Your task to perform on an android device: Open Chrome and go to settings Image 0: 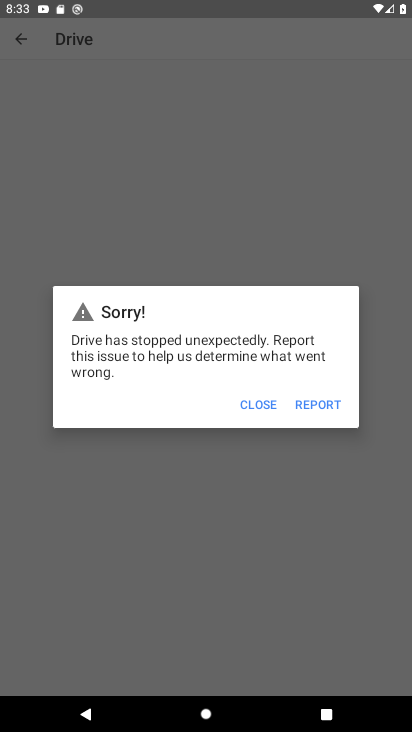
Step 0: press home button
Your task to perform on an android device: Open Chrome and go to settings Image 1: 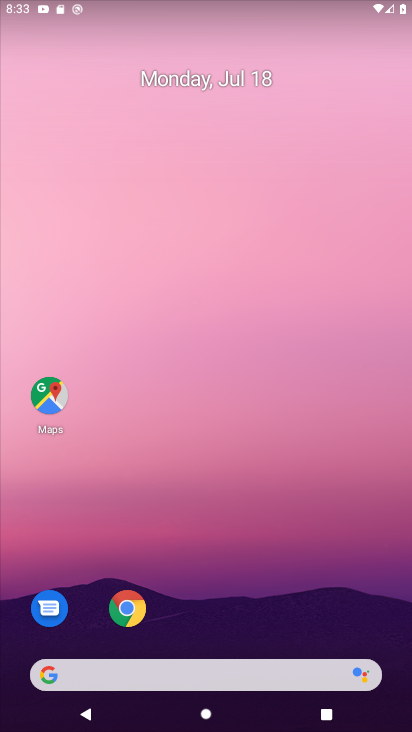
Step 1: click (129, 609)
Your task to perform on an android device: Open Chrome and go to settings Image 2: 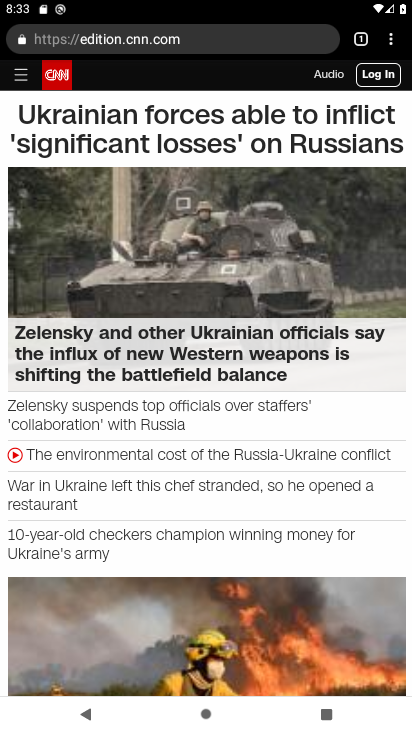
Step 2: click (392, 40)
Your task to perform on an android device: Open Chrome and go to settings Image 3: 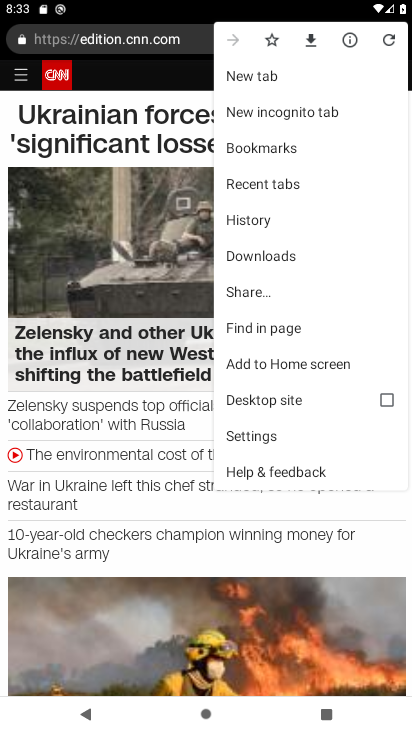
Step 3: click (263, 433)
Your task to perform on an android device: Open Chrome and go to settings Image 4: 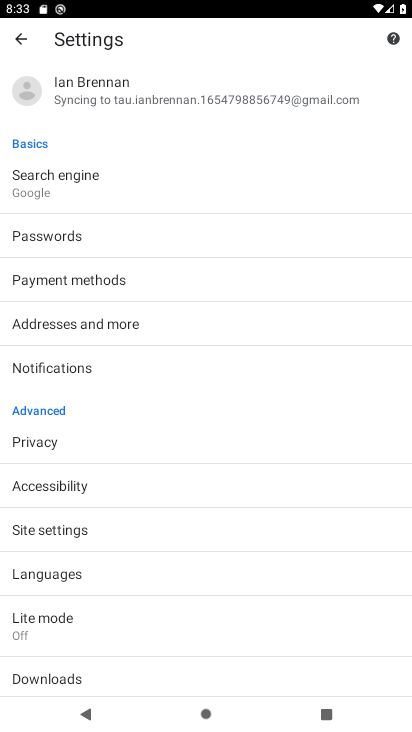
Step 4: task complete